Your task to perform on an android device: turn on bluetooth scan Image 0: 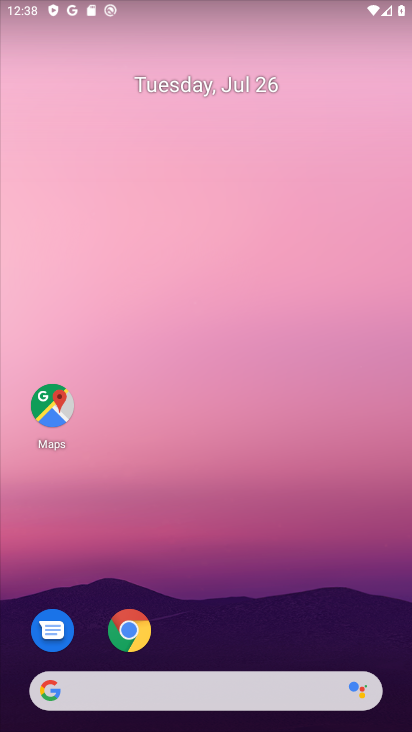
Step 0: drag from (249, 554) to (303, 22)
Your task to perform on an android device: turn on bluetooth scan Image 1: 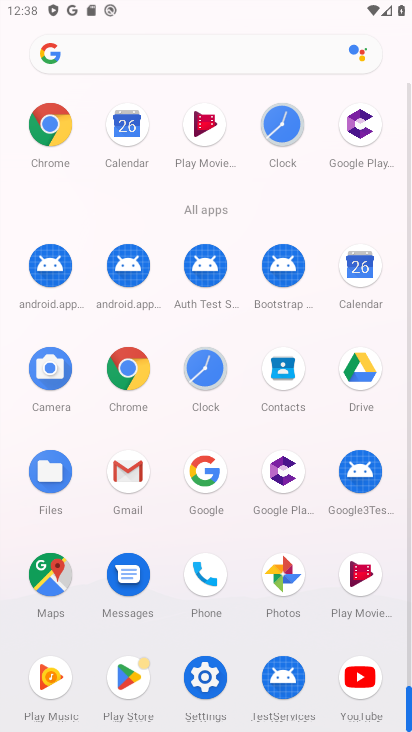
Step 1: click (200, 681)
Your task to perform on an android device: turn on bluetooth scan Image 2: 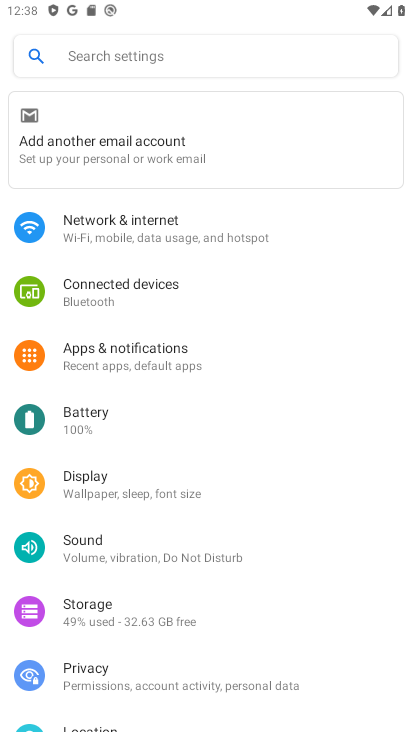
Step 2: drag from (121, 672) to (196, 214)
Your task to perform on an android device: turn on bluetooth scan Image 3: 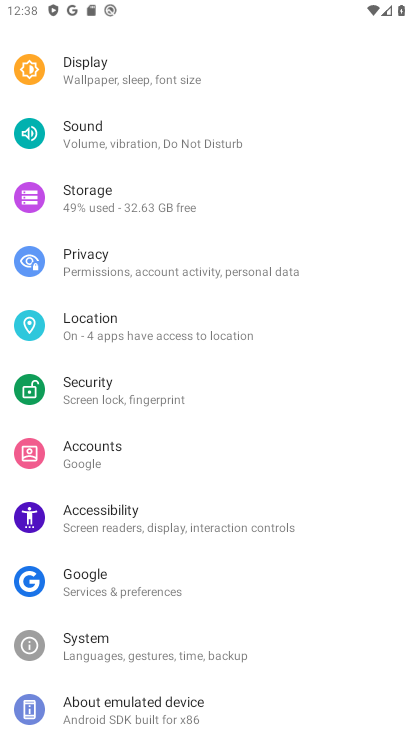
Step 3: click (115, 323)
Your task to perform on an android device: turn on bluetooth scan Image 4: 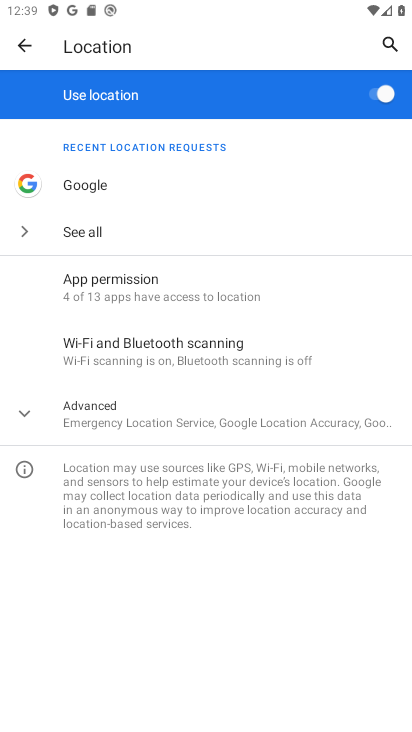
Step 4: click (94, 350)
Your task to perform on an android device: turn on bluetooth scan Image 5: 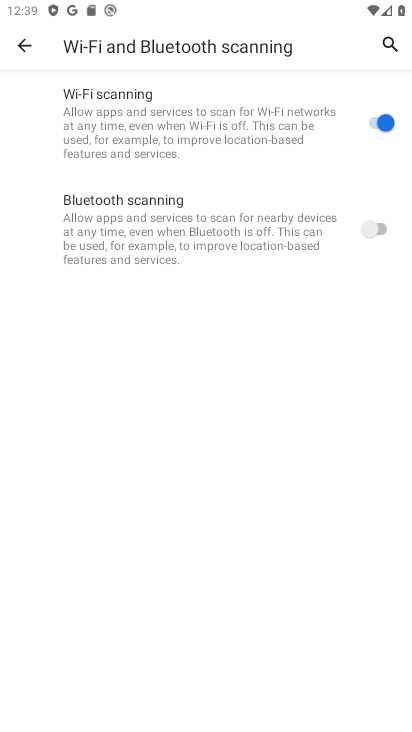
Step 5: click (374, 233)
Your task to perform on an android device: turn on bluetooth scan Image 6: 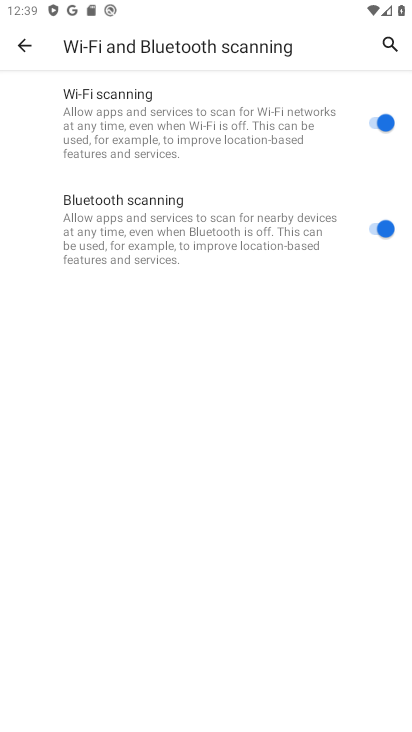
Step 6: task complete